Your task to perform on an android device: clear all cookies in the chrome app Image 0: 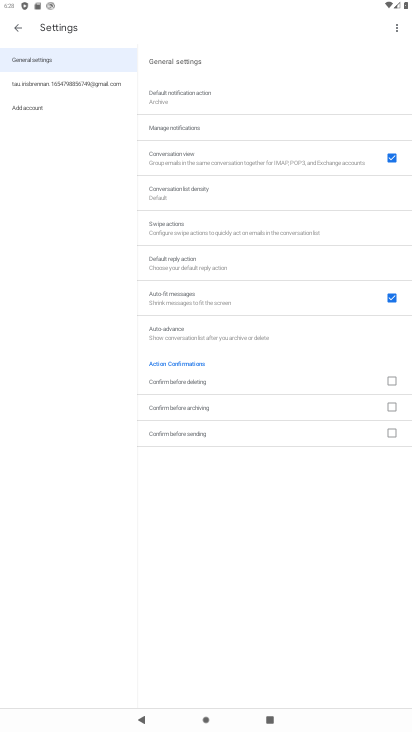
Step 0: press home button
Your task to perform on an android device: clear all cookies in the chrome app Image 1: 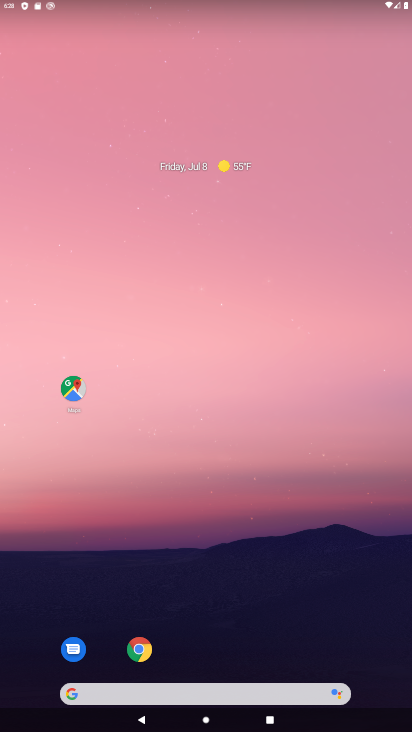
Step 1: drag from (279, 534) to (317, 9)
Your task to perform on an android device: clear all cookies in the chrome app Image 2: 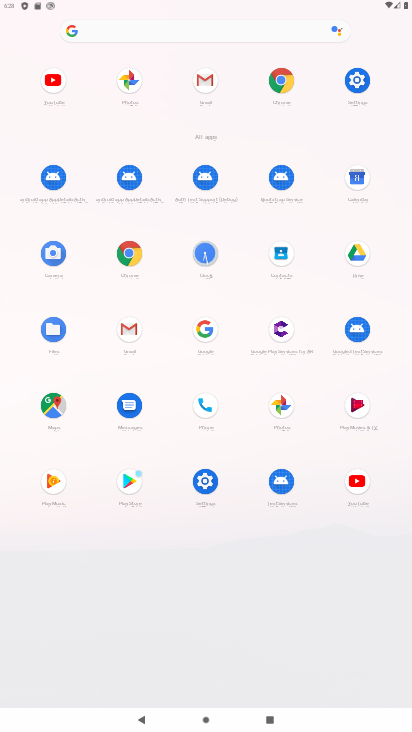
Step 2: click (131, 256)
Your task to perform on an android device: clear all cookies in the chrome app Image 3: 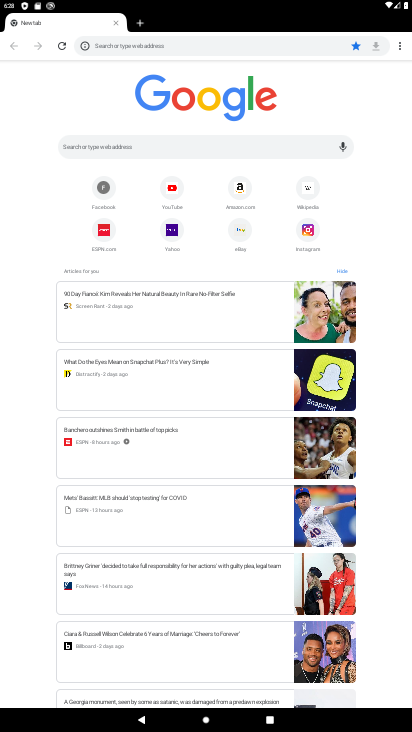
Step 3: drag from (395, 42) to (310, 212)
Your task to perform on an android device: clear all cookies in the chrome app Image 4: 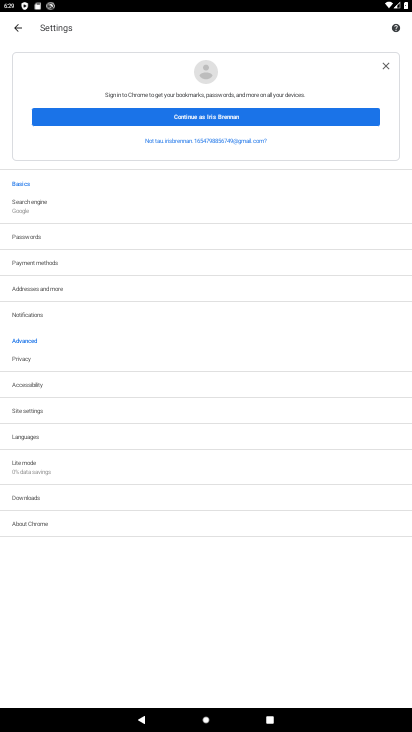
Step 4: click (28, 366)
Your task to perform on an android device: clear all cookies in the chrome app Image 5: 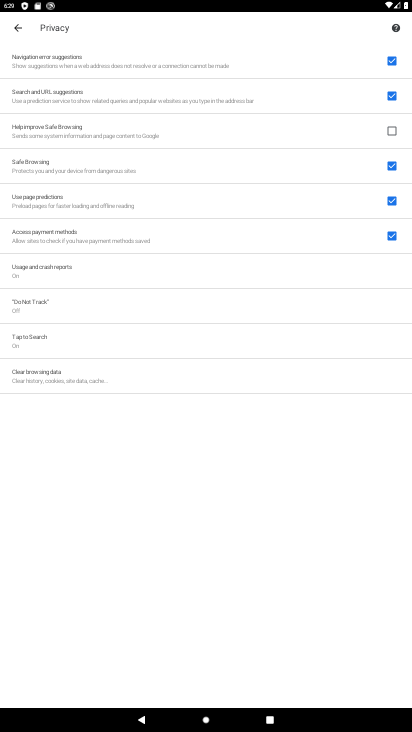
Step 5: click (69, 377)
Your task to perform on an android device: clear all cookies in the chrome app Image 6: 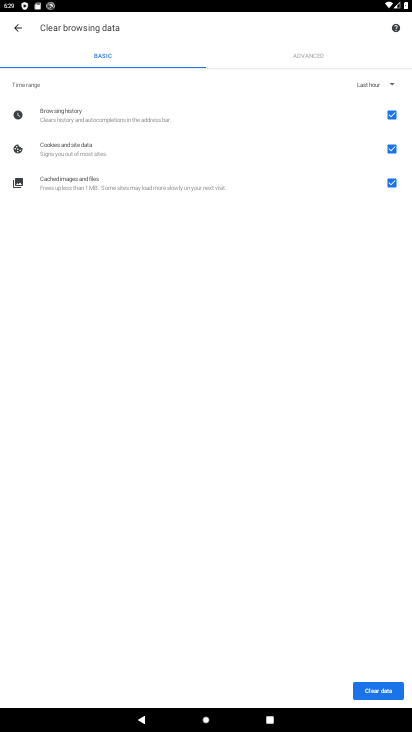
Step 6: click (376, 683)
Your task to perform on an android device: clear all cookies in the chrome app Image 7: 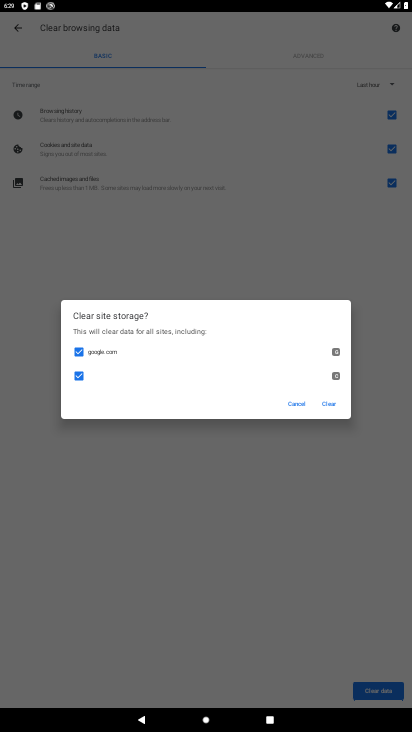
Step 7: click (323, 398)
Your task to perform on an android device: clear all cookies in the chrome app Image 8: 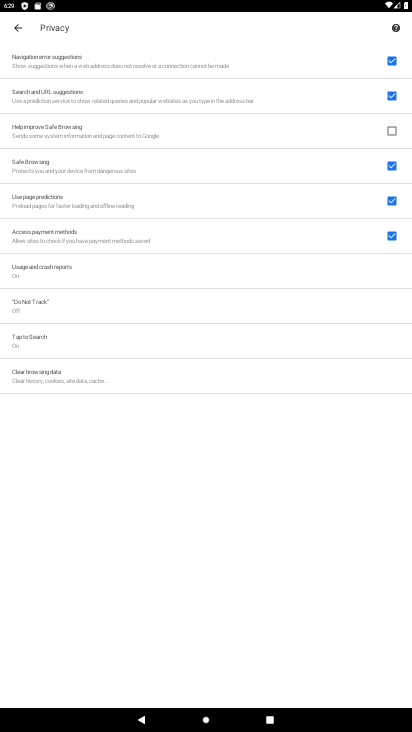
Step 8: task complete